Your task to perform on an android device: find which apps use the phone's location Image 0: 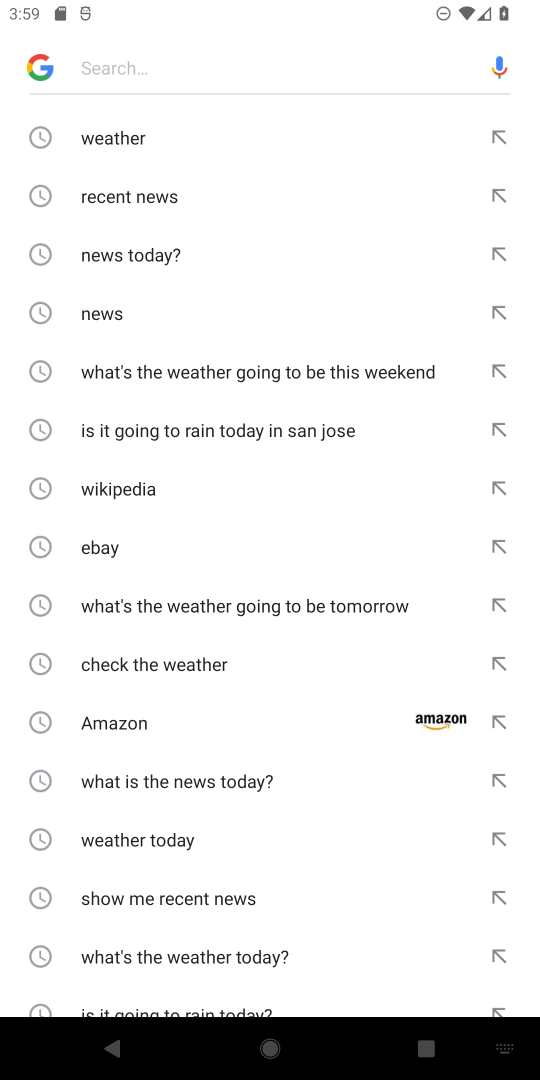
Step 0: press home button
Your task to perform on an android device: find which apps use the phone's location Image 1: 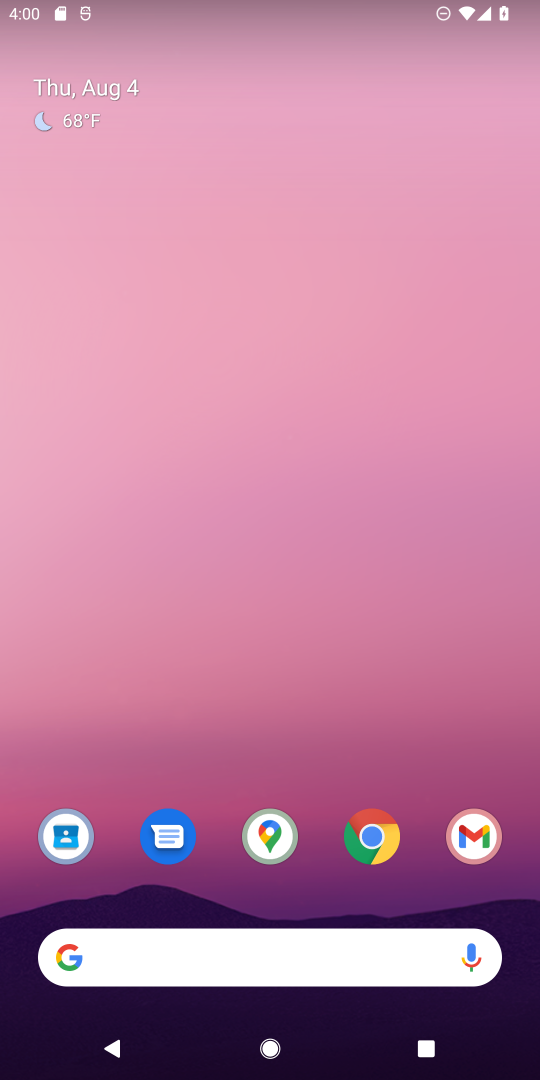
Step 1: drag from (260, 320) to (305, 21)
Your task to perform on an android device: find which apps use the phone's location Image 2: 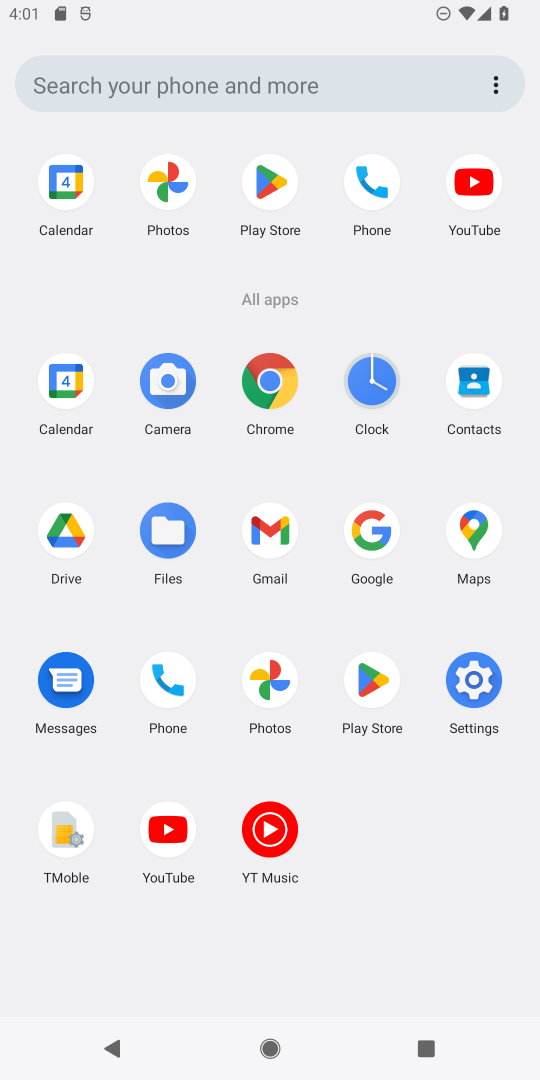
Step 2: click (478, 691)
Your task to perform on an android device: find which apps use the phone's location Image 3: 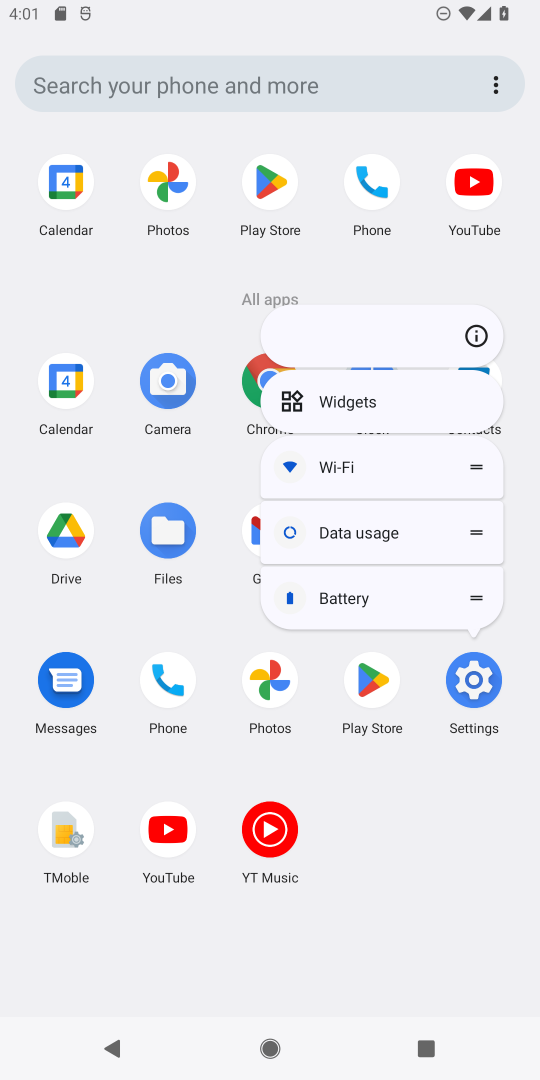
Step 3: click (478, 691)
Your task to perform on an android device: find which apps use the phone's location Image 4: 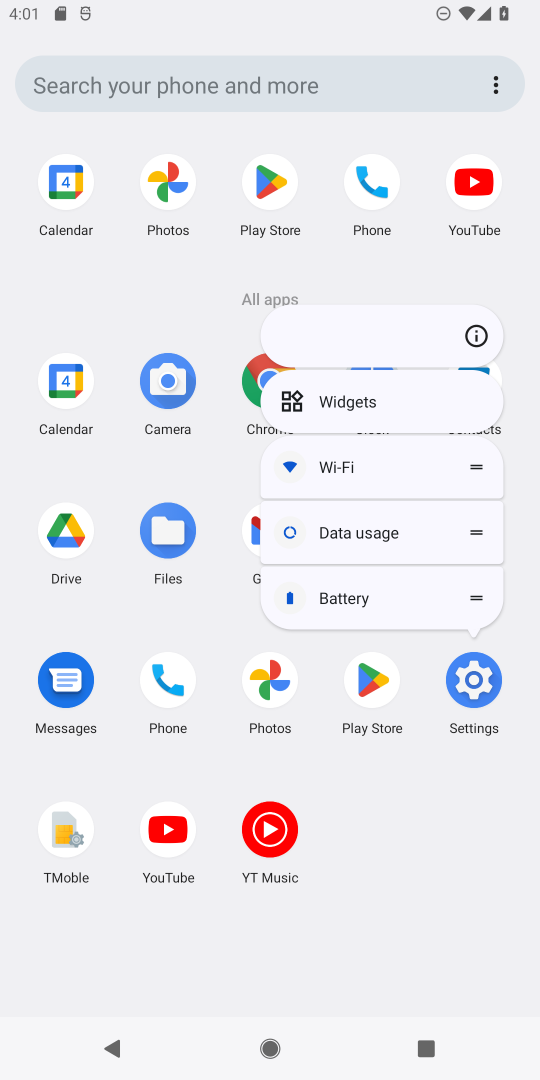
Step 4: click (478, 691)
Your task to perform on an android device: find which apps use the phone's location Image 5: 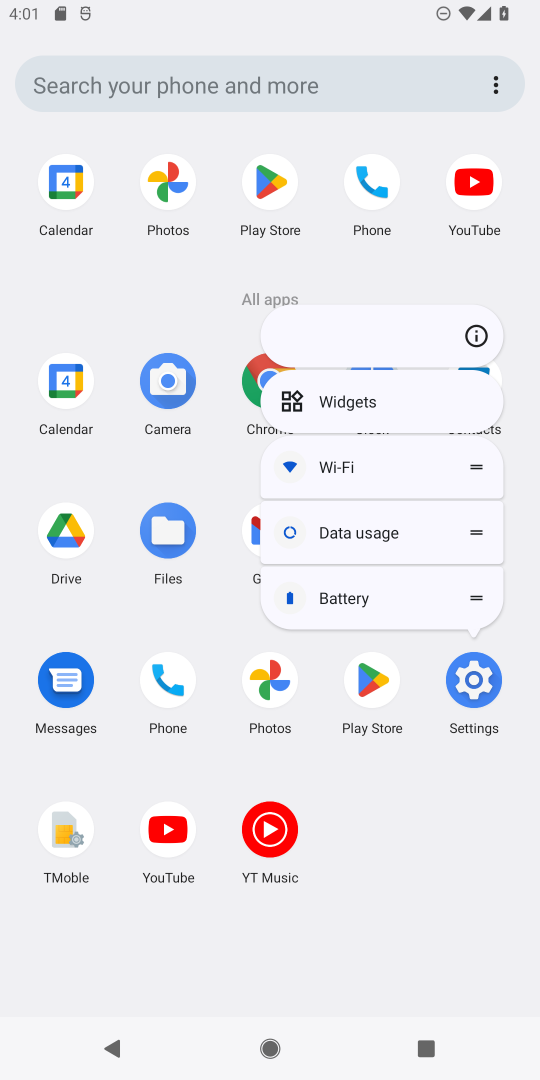
Step 5: click (478, 691)
Your task to perform on an android device: find which apps use the phone's location Image 6: 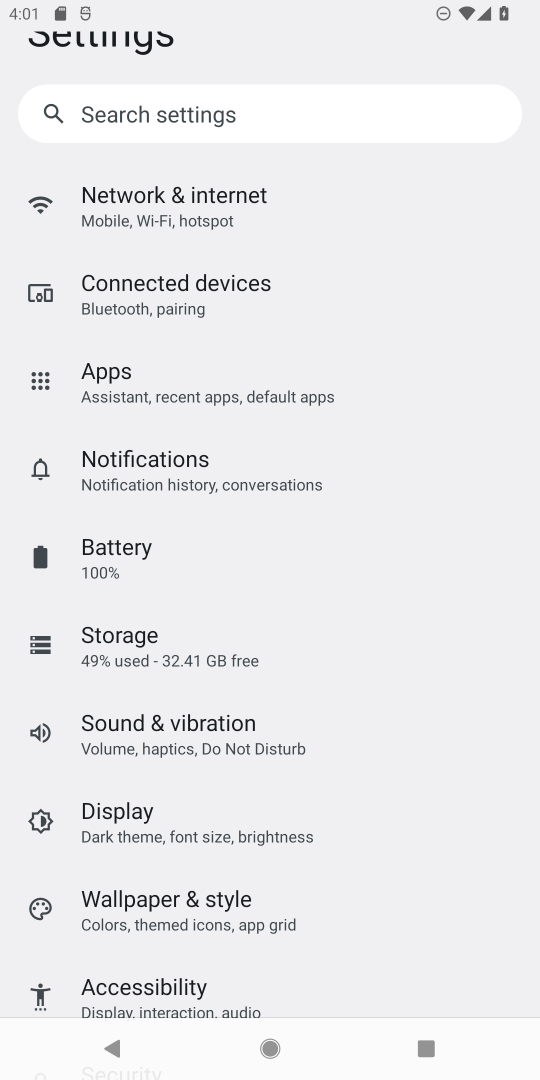
Step 6: drag from (306, 848) to (355, 266)
Your task to perform on an android device: find which apps use the phone's location Image 7: 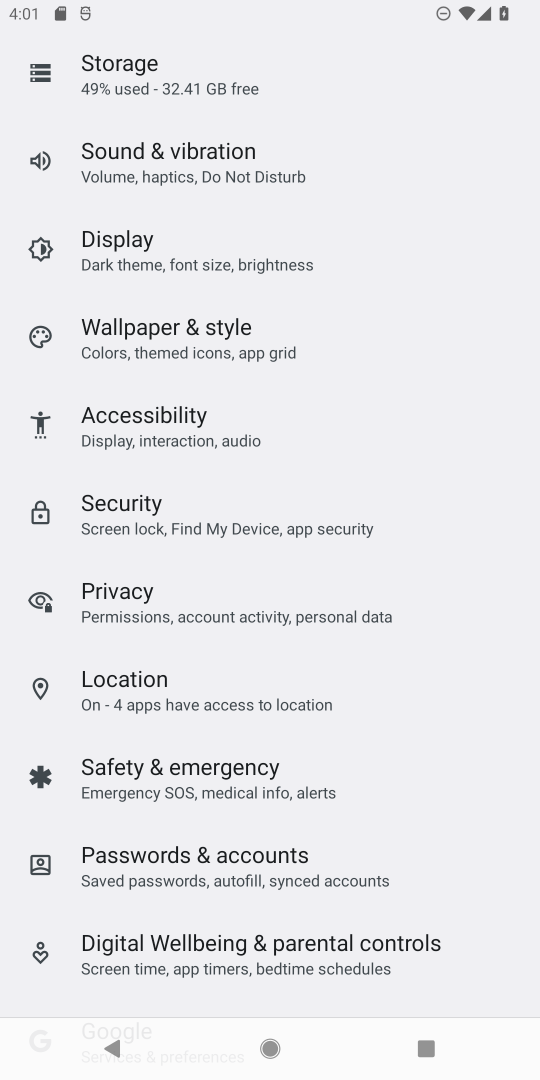
Step 7: click (245, 703)
Your task to perform on an android device: find which apps use the phone's location Image 8: 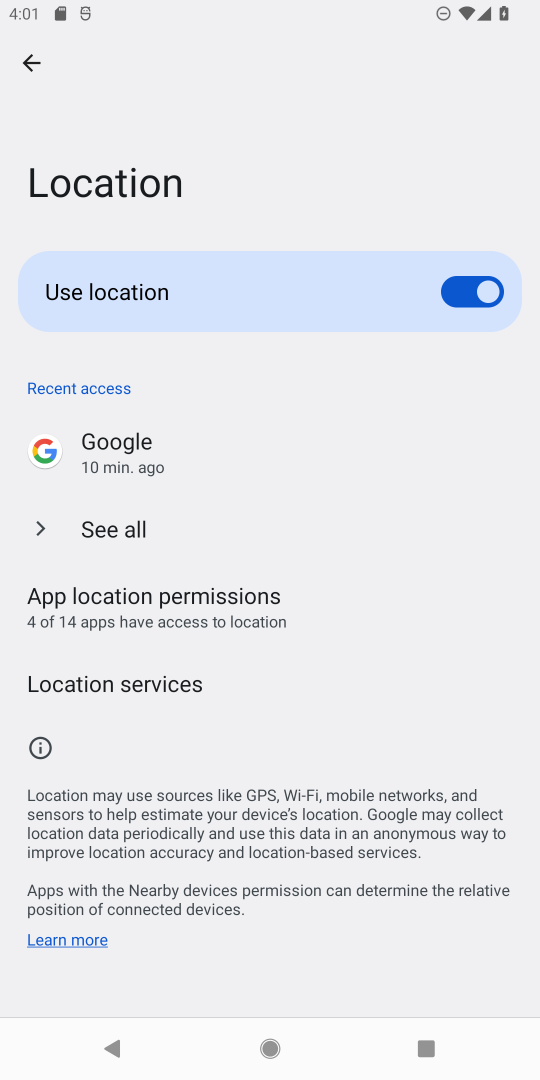
Step 8: click (81, 523)
Your task to perform on an android device: find which apps use the phone's location Image 9: 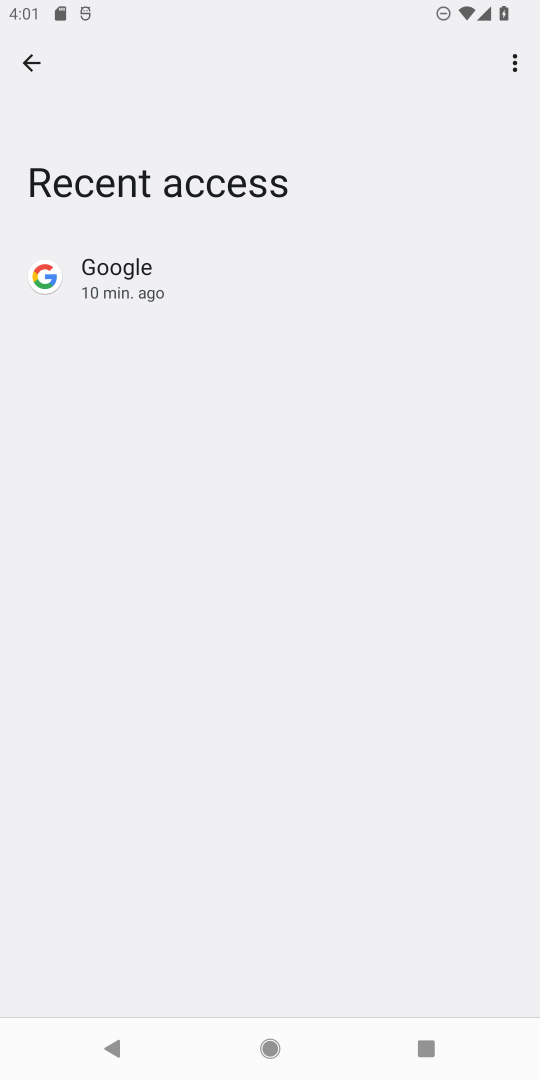
Step 9: task complete